Your task to perform on an android device: Go to settings Image 0: 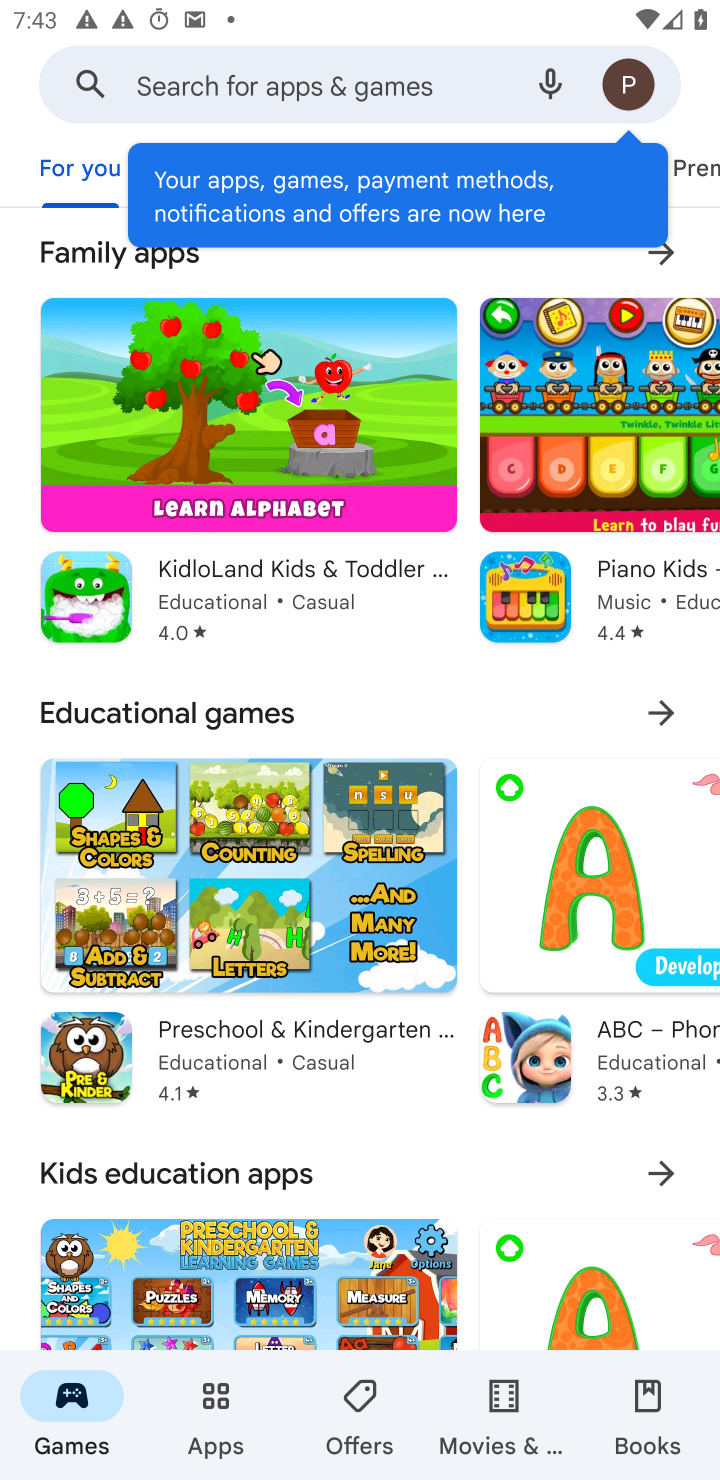
Step 0: press home button
Your task to perform on an android device: Go to settings Image 1: 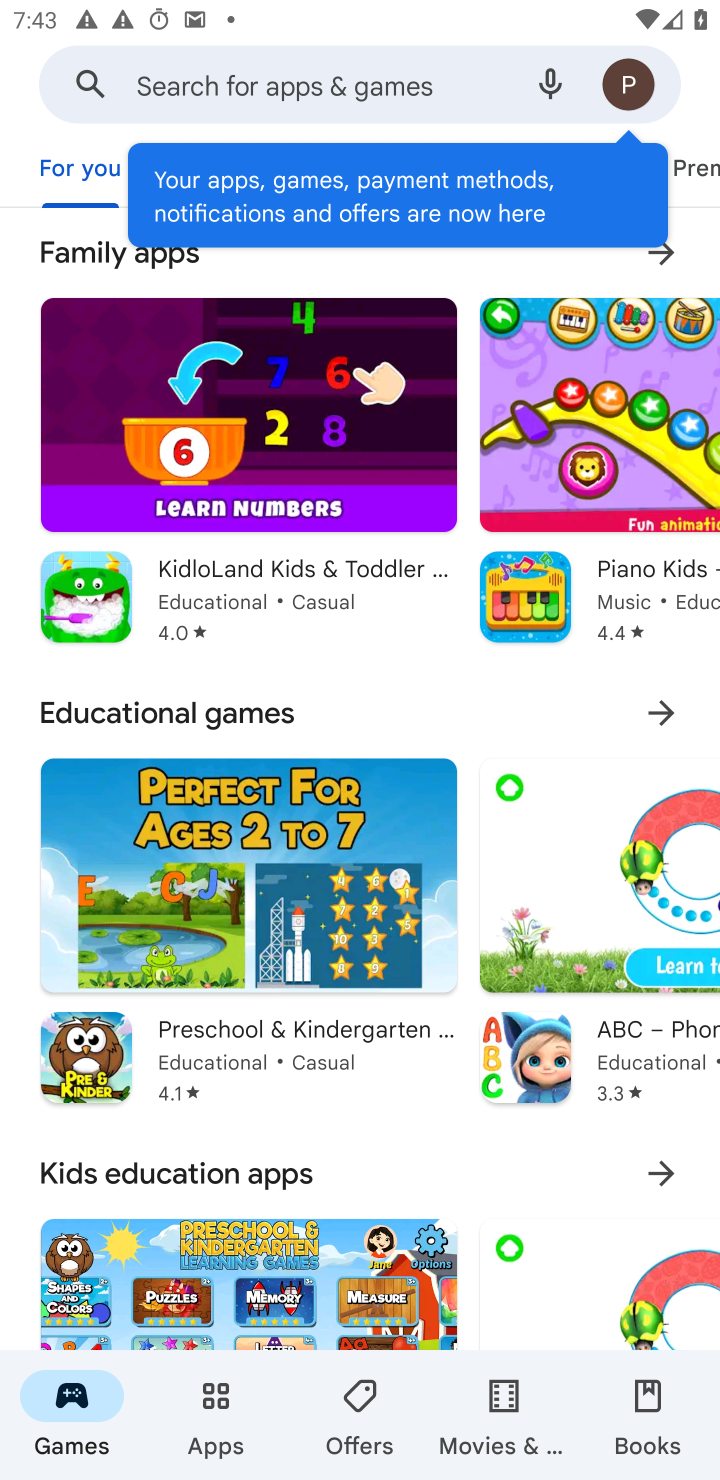
Step 1: drag from (405, 837) to (380, 243)
Your task to perform on an android device: Go to settings Image 2: 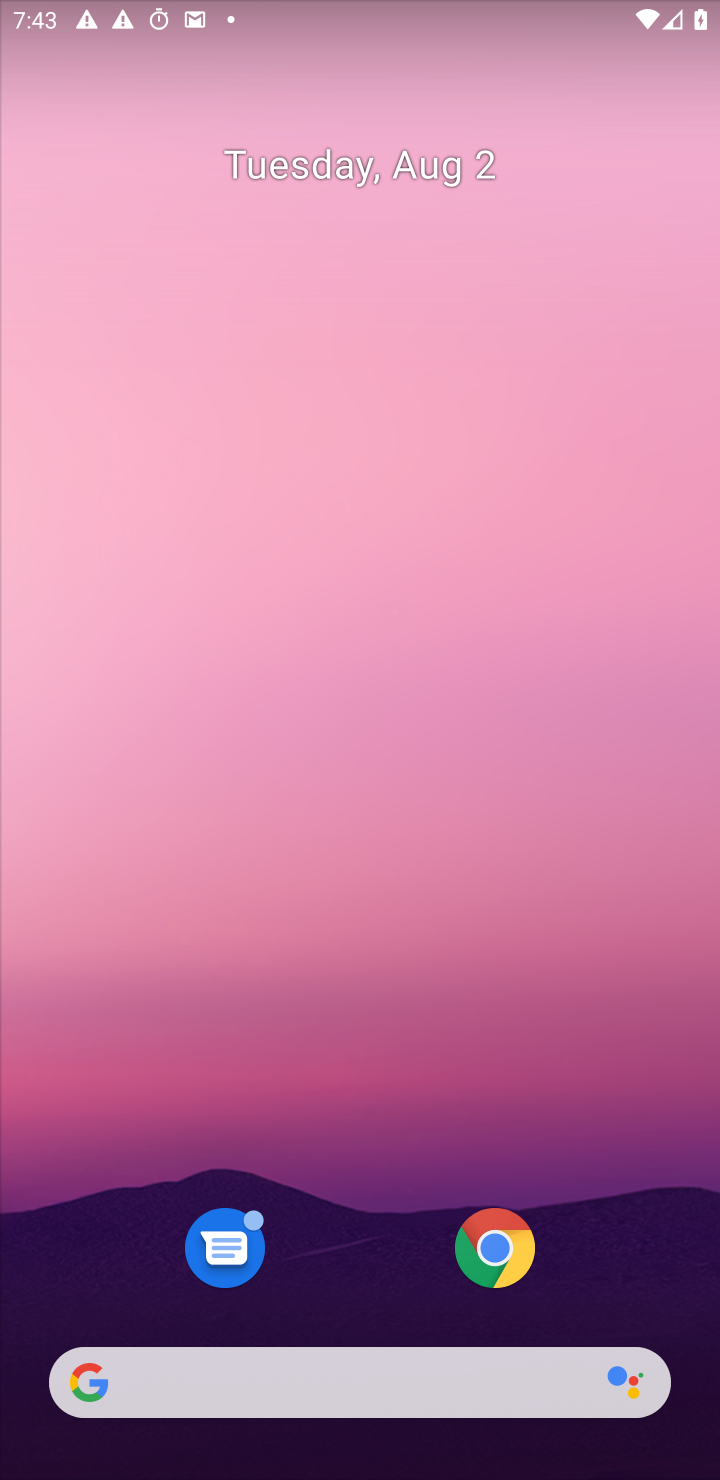
Step 2: drag from (435, 808) to (546, 342)
Your task to perform on an android device: Go to settings Image 3: 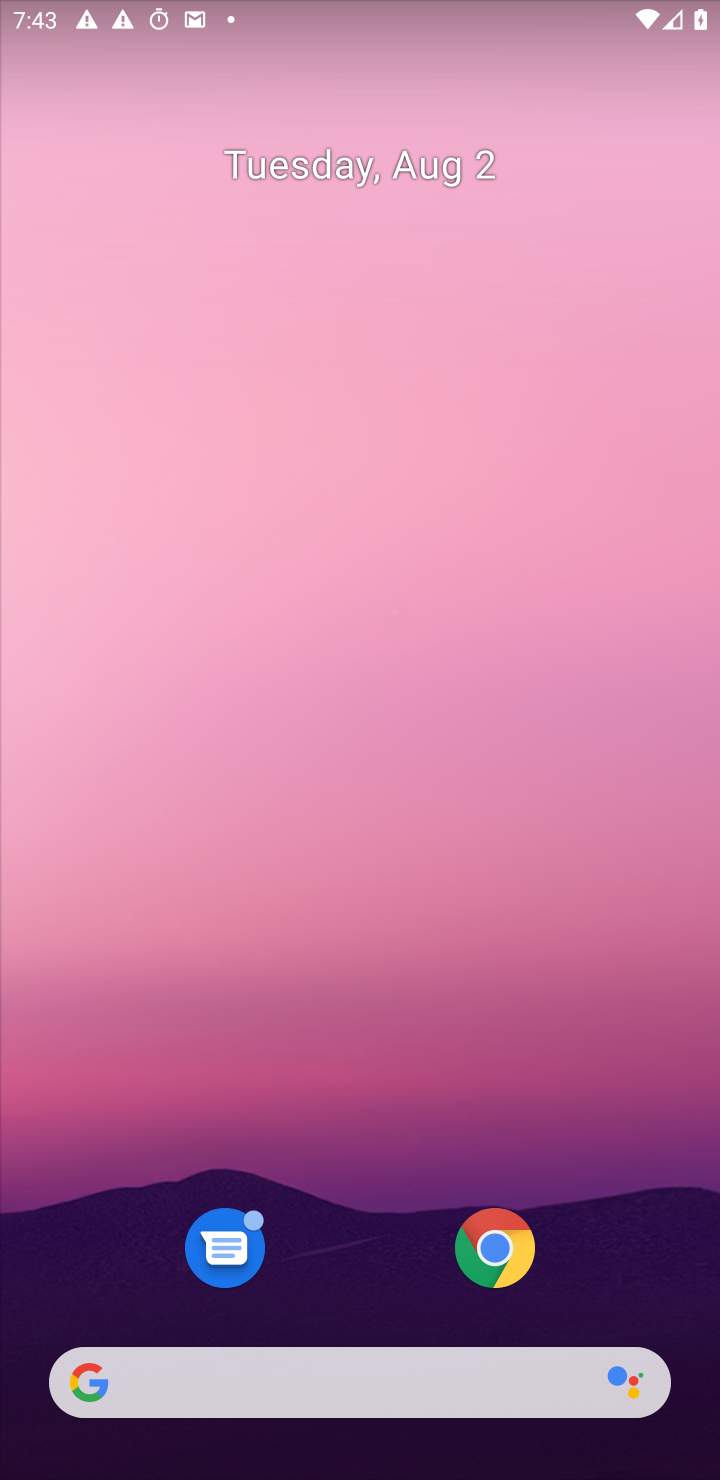
Step 3: drag from (293, 1185) to (487, 91)
Your task to perform on an android device: Go to settings Image 4: 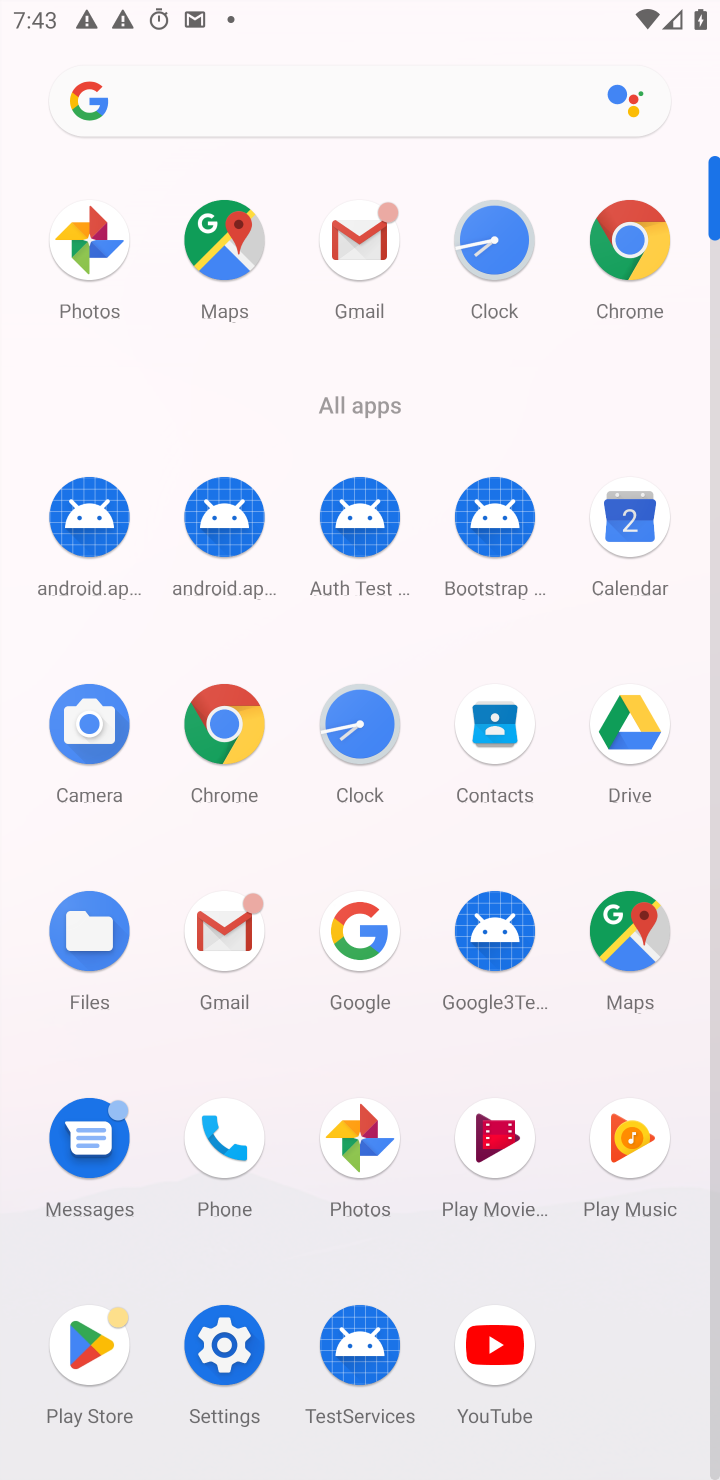
Step 4: click (220, 1340)
Your task to perform on an android device: Go to settings Image 5: 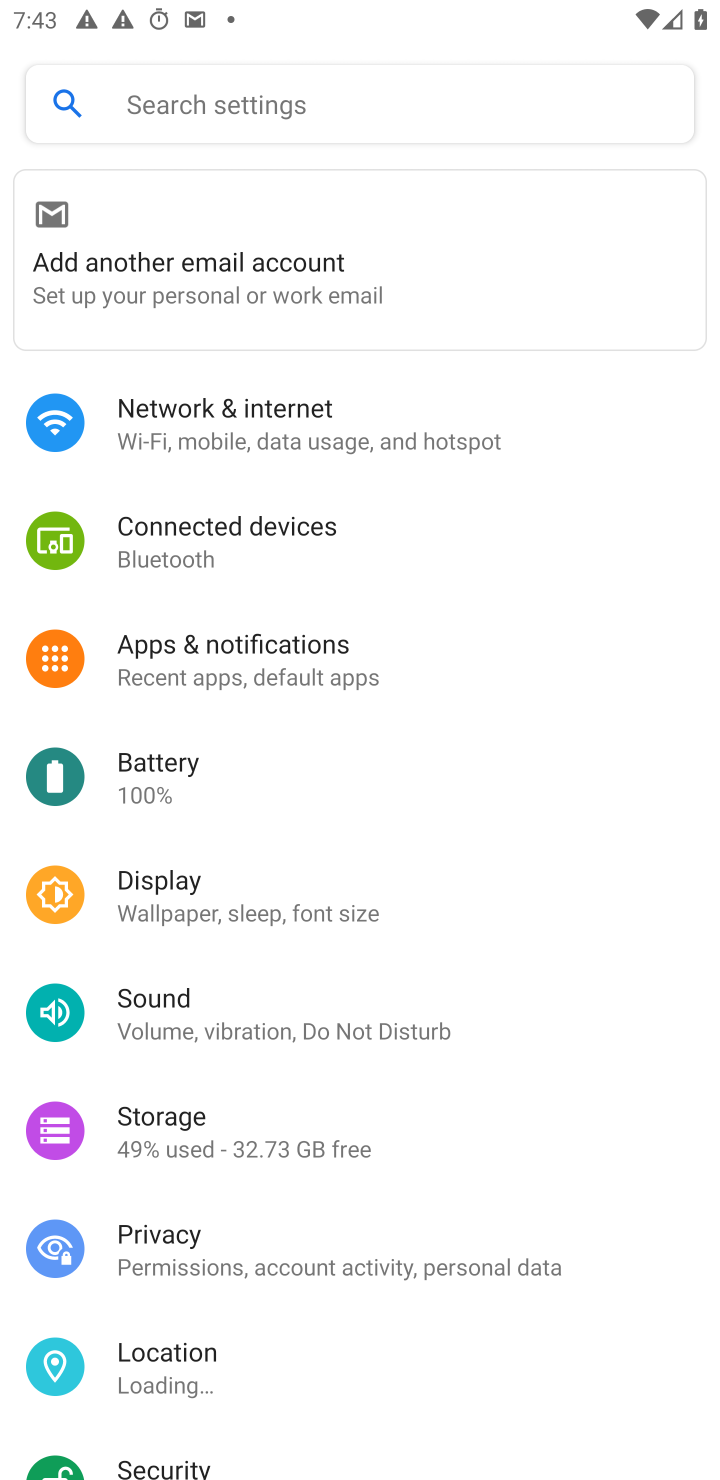
Step 5: task complete